Your task to perform on an android device: Go to calendar. Show me events next week Image 0: 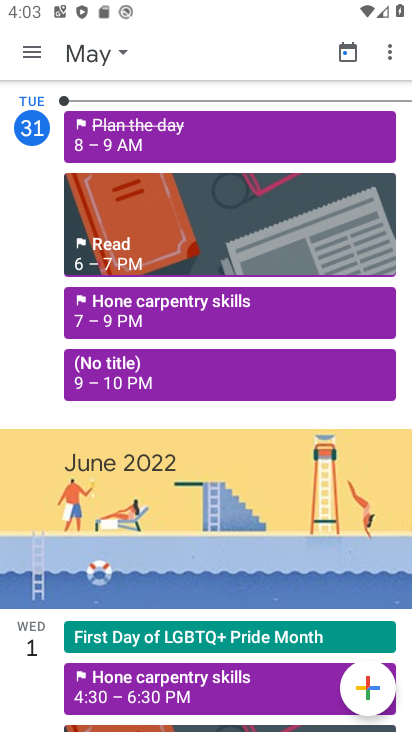
Step 0: press back button
Your task to perform on an android device: Go to calendar. Show me events next week Image 1: 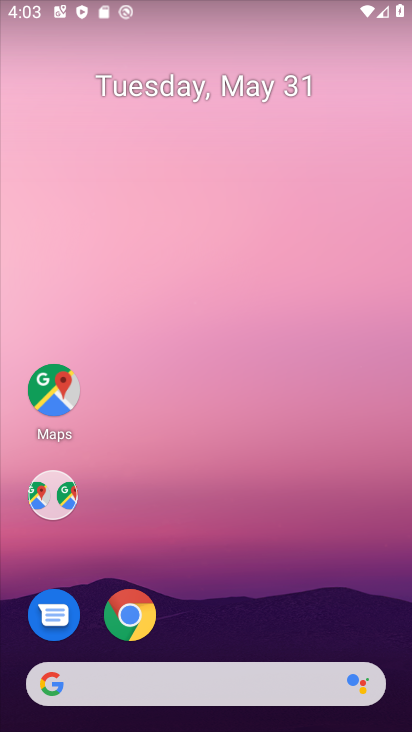
Step 1: drag from (215, 557) to (166, 203)
Your task to perform on an android device: Go to calendar. Show me events next week Image 2: 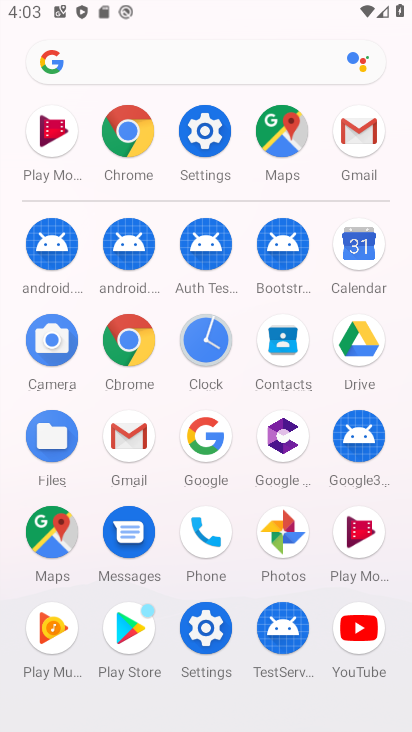
Step 2: click (362, 246)
Your task to perform on an android device: Go to calendar. Show me events next week Image 3: 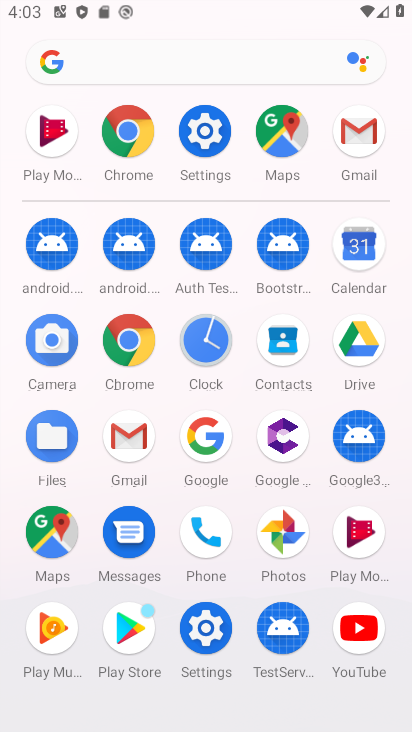
Step 3: click (362, 245)
Your task to perform on an android device: Go to calendar. Show me events next week Image 4: 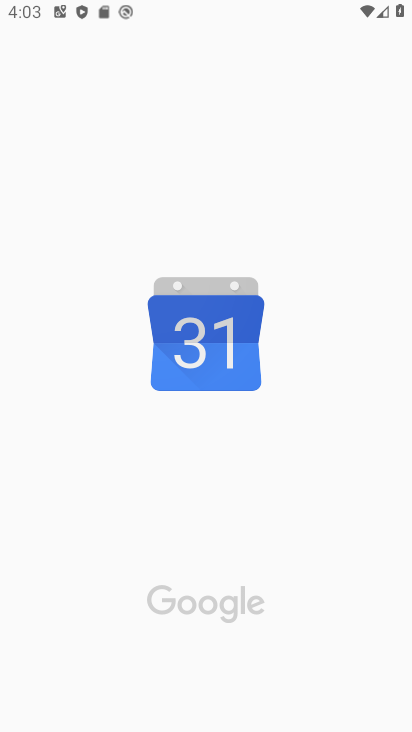
Step 4: click (360, 239)
Your task to perform on an android device: Go to calendar. Show me events next week Image 5: 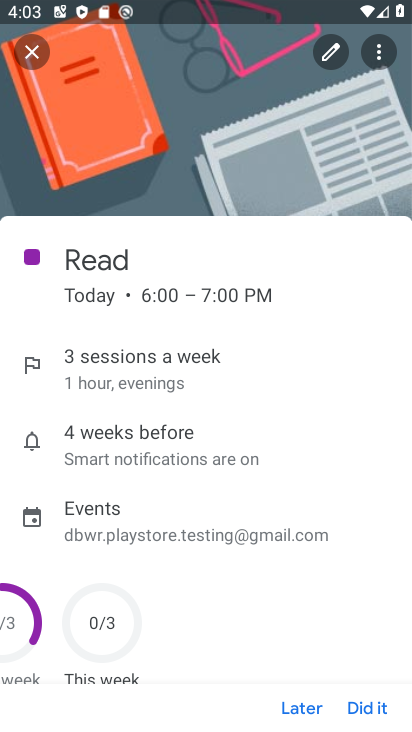
Step 5: task complete